Your task to perform on an android device: turn pop-ups on in chrome Image 0: 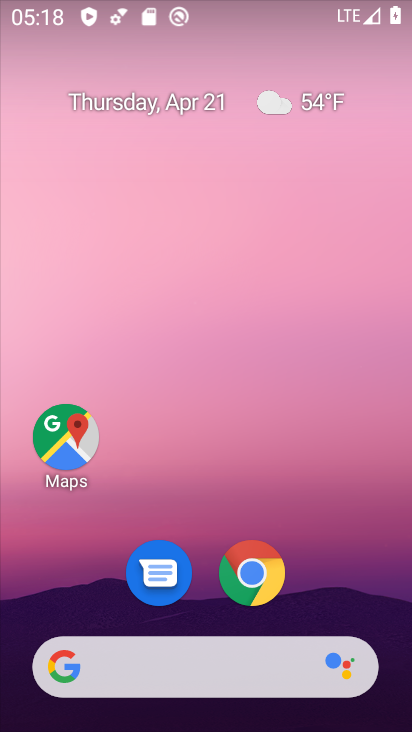
Step 0: click (255, 575)
Your task to perform on an android device: turn pop-ups on in chrome Image 1: 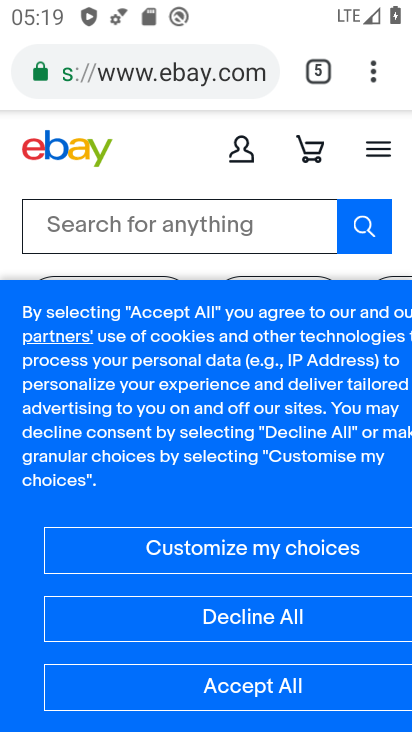
Step 1: click (374, 75)
Your task to perform on an android device: turn pop-ups on in chrome Image 2: 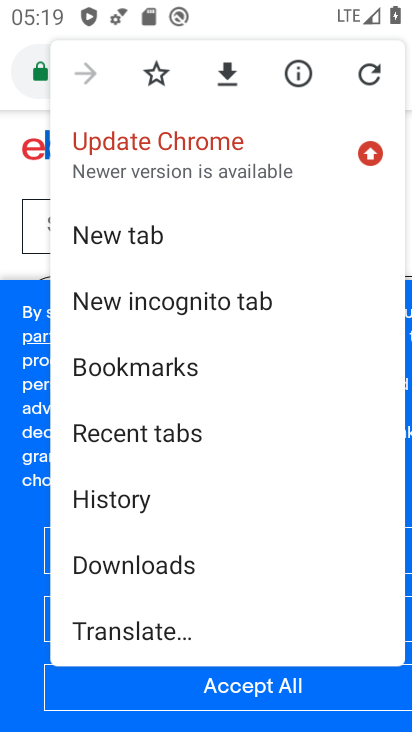
Step 2: drag from (244, 587) to (281, 299)
Your task to perform on an android device: turn pop-ups on in chrome Image 3: 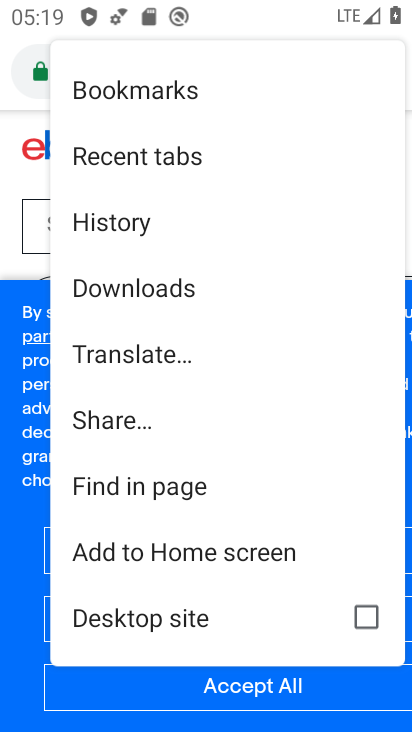
Step 3: drag from (329, 547) to (300, 253)
Your task to perform on an android device: turn pop-ups on in chrome Image 4: 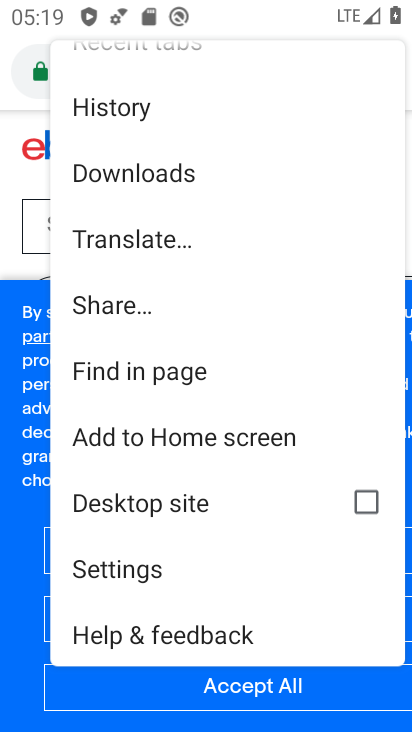
Step 4: click (121, 570)
Your task to perform on an android device: turn pop-ups on in chrome Image 5: 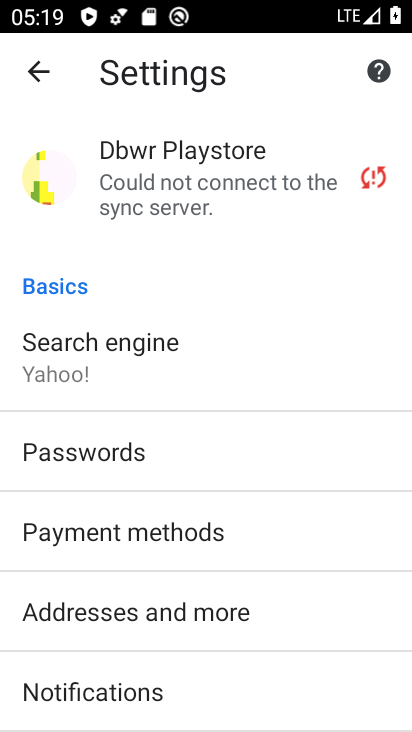
Step 5: drag from (314, 633) to (316, 369)
Your task to perform on an android device: turn pop-ups on in chrome Image 6: 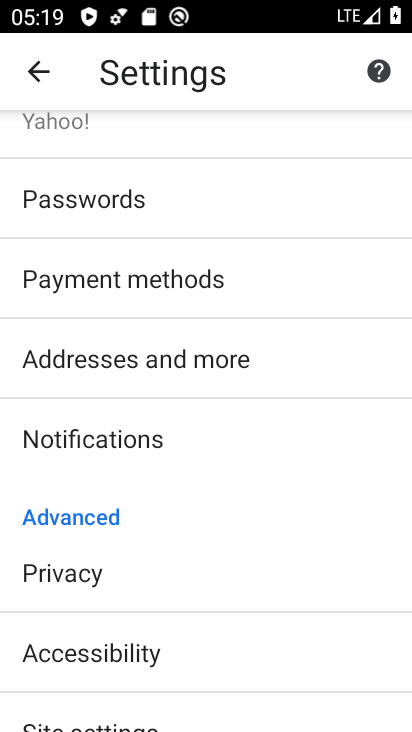
Step 6: drag from (291, 577) to (322, 257)
Your task to perform on an android device: turn pop-ups on in chrome Image 7: 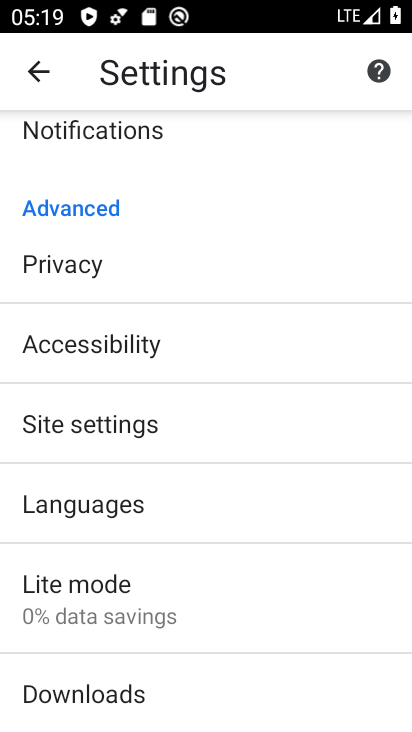
Step 7: click (53, 428)
Your task to perform on an android device: turn pop-ups on in chrome Image 8: 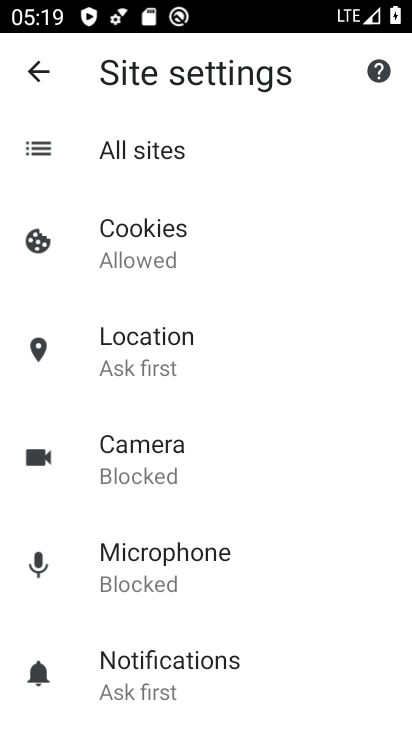
Step 8: drag from (290, 624) to (295, 361)
Your task to perform on an android device: turn pop-ups on in chrome Image 9: 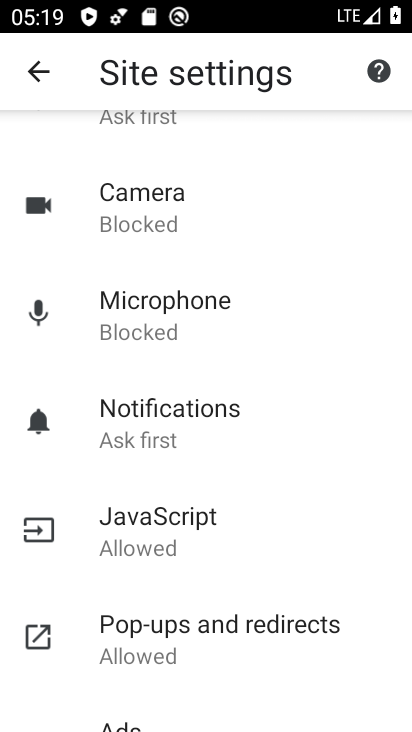
Step 9: click (131, 622)
Your task to perform on an android device: turn pop-ups on in chrome Image 10: 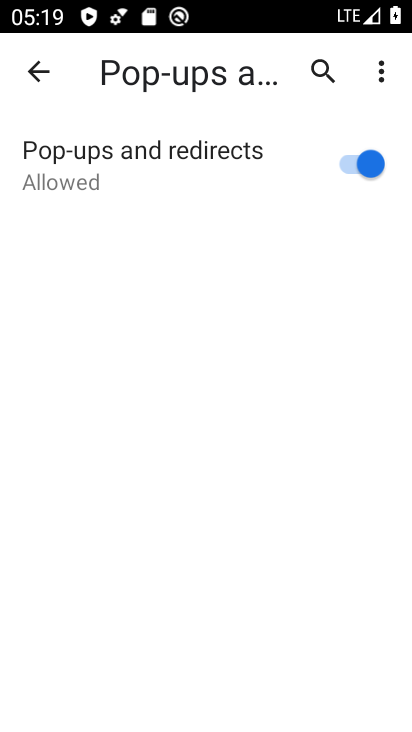
Step 10: task complete